Your task to perform on an android device: open chrome privacy settings Image 0: 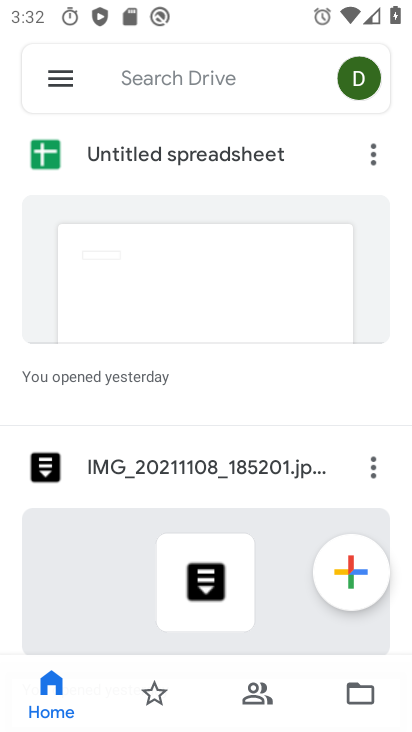
Step 0: press home button
Your task to perform on an android device: open chrome privacy settings Image 1: 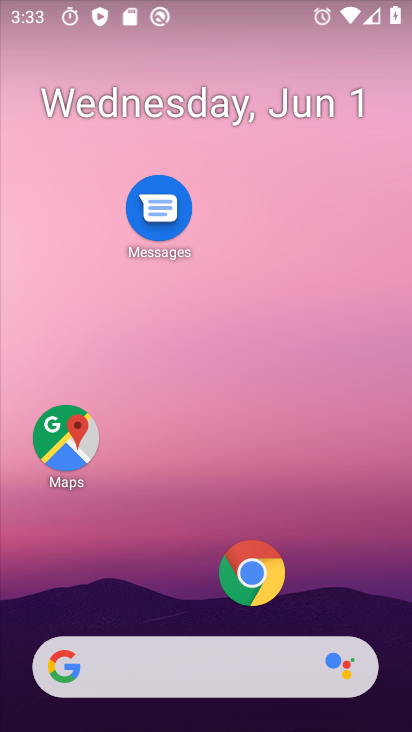
Step 1: click (247, 561)
Your task to perform on an android device: open chrome privacy settings Image 2: 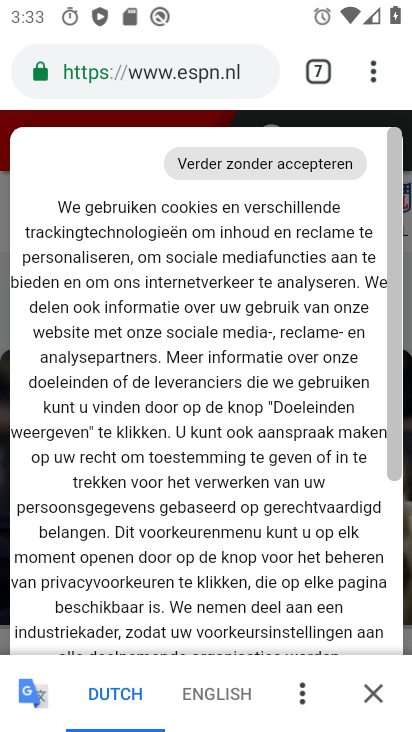
Step 2: drag from (378, 76) to (156, 574)
Your task to perform on an android device: open chrome privacy settings Image 3: 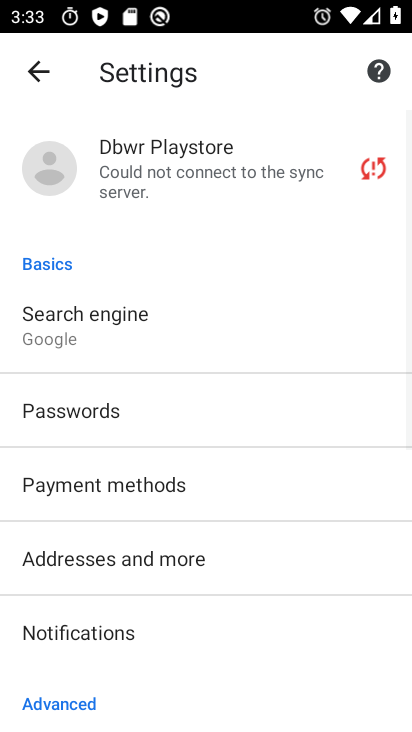
Step 3: drag from (160, 612) to (186, 337)
Your task to perform on an android device: open chrome privacy settings Image 4: 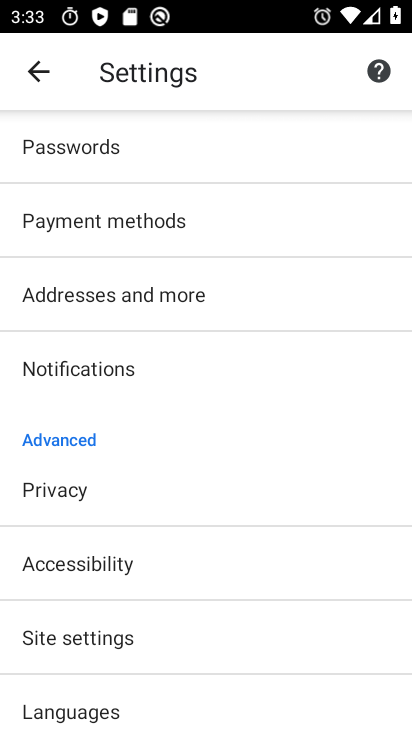
Step 4: click (76, 482)
Your task to perform on an android device: open chrome privacy settings Image 5: 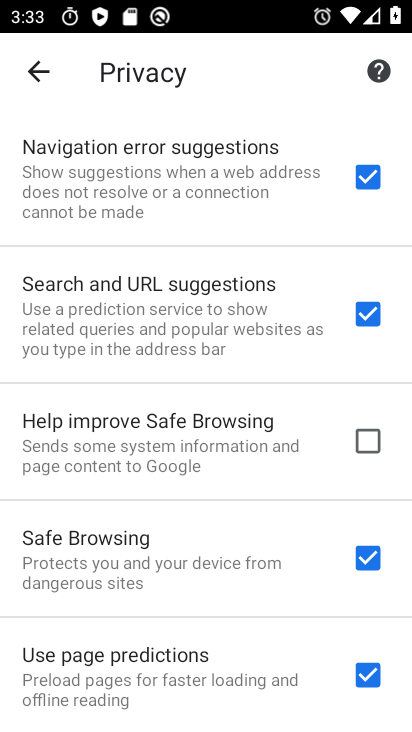
Step 5: task complete